Your task to perform on an android device: refresh tabs in the chrome app Image 0: 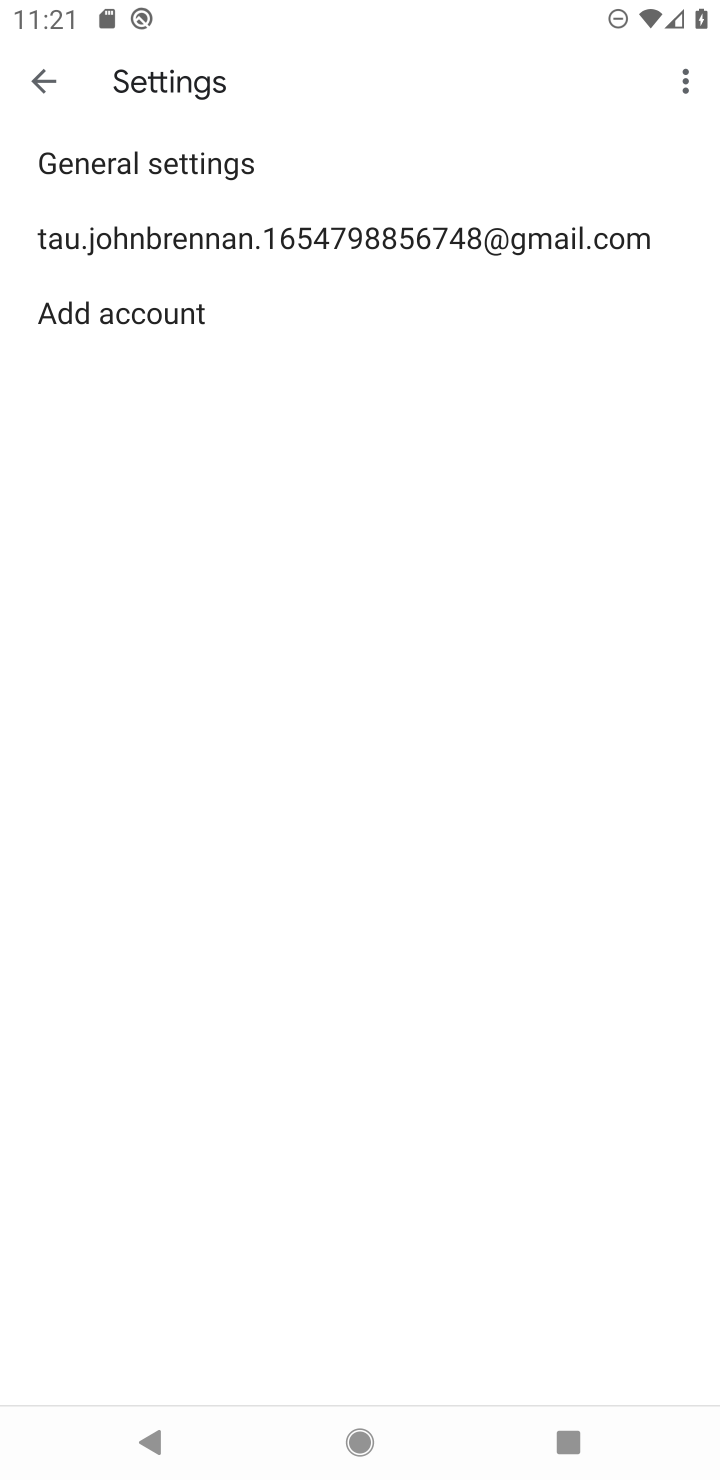
Step 0: press home button
Your task to perform on an android device: refresh tabs in the chrome app Image 1: 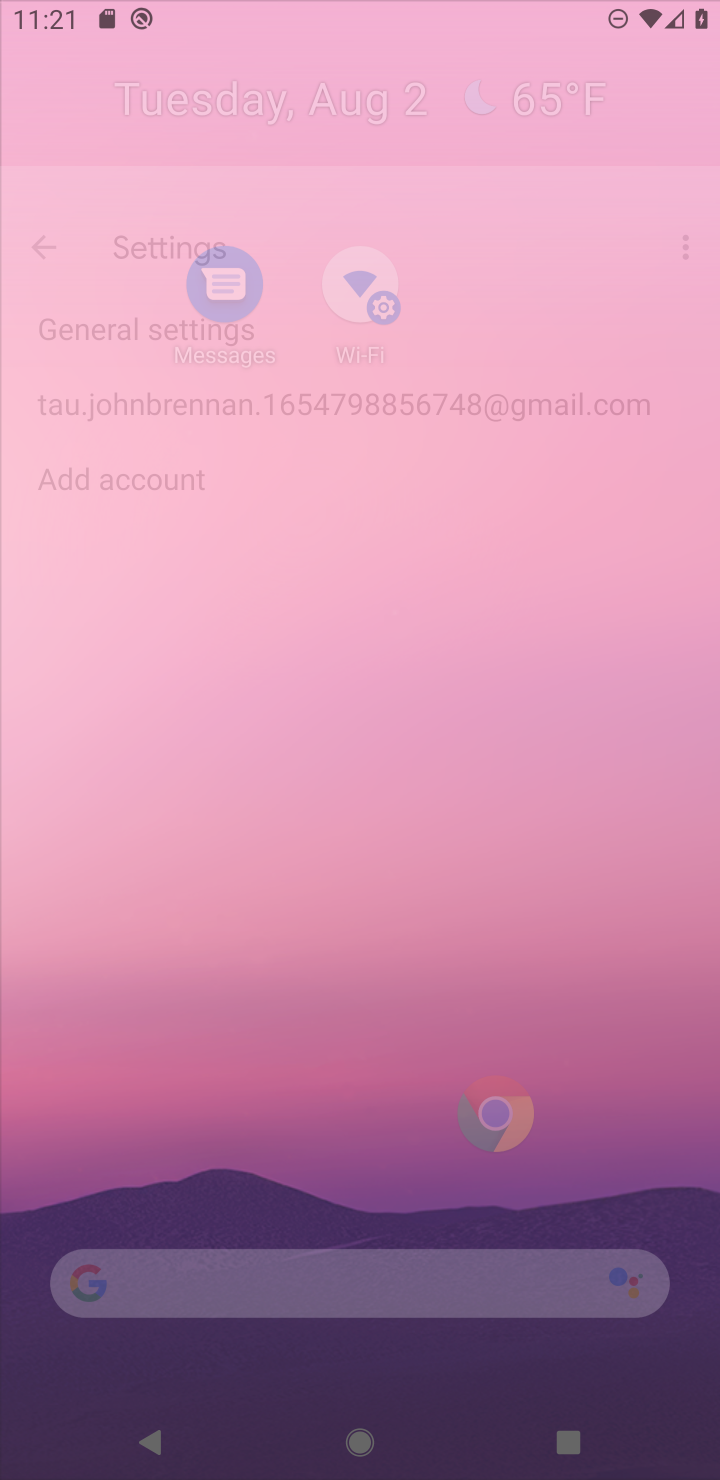
Step 1: drag from (421, 779) to (472, 221)
Your task to perform on an android device: refresh tabs in the chrome app Image 2: 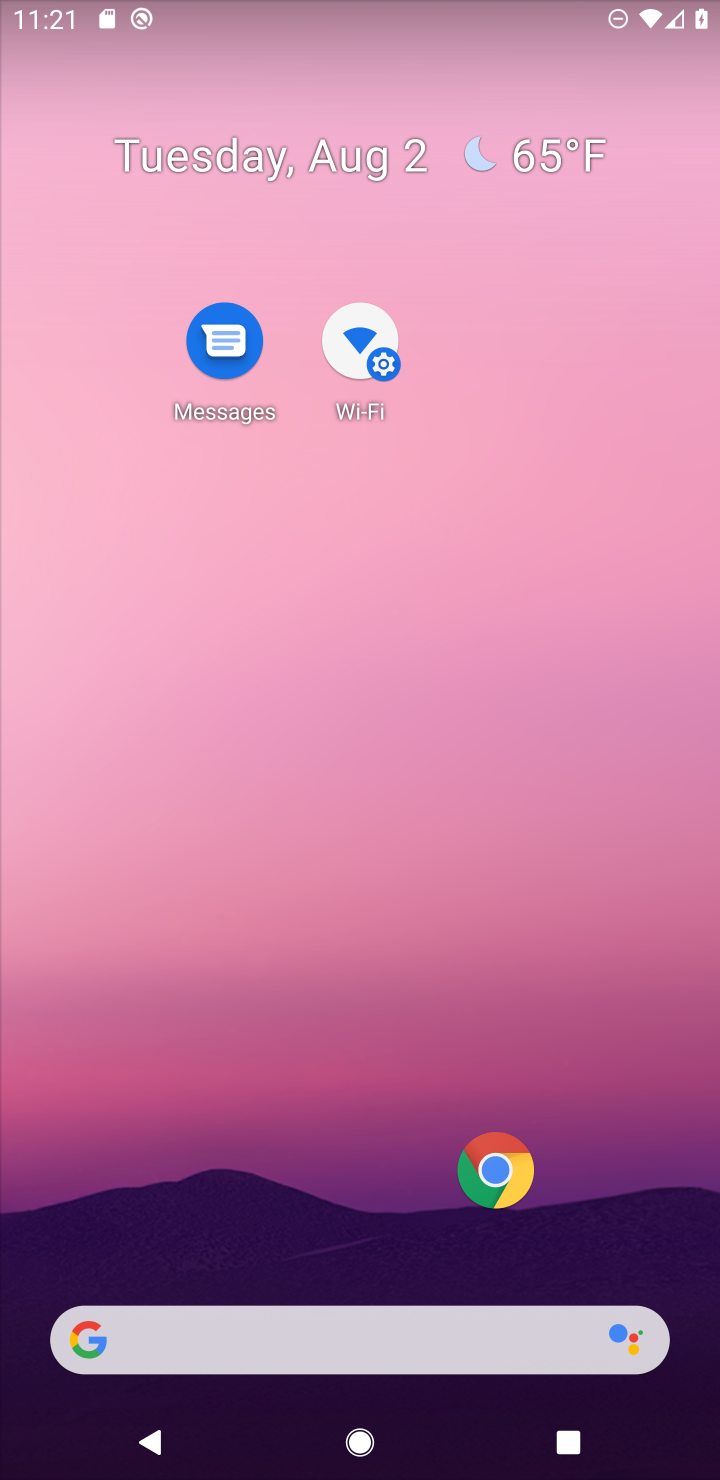
Step 2: drag from (402, 1199) to (470, 824)
Your task to perform on an android device: refresh tabs in the chrome app Image 3: 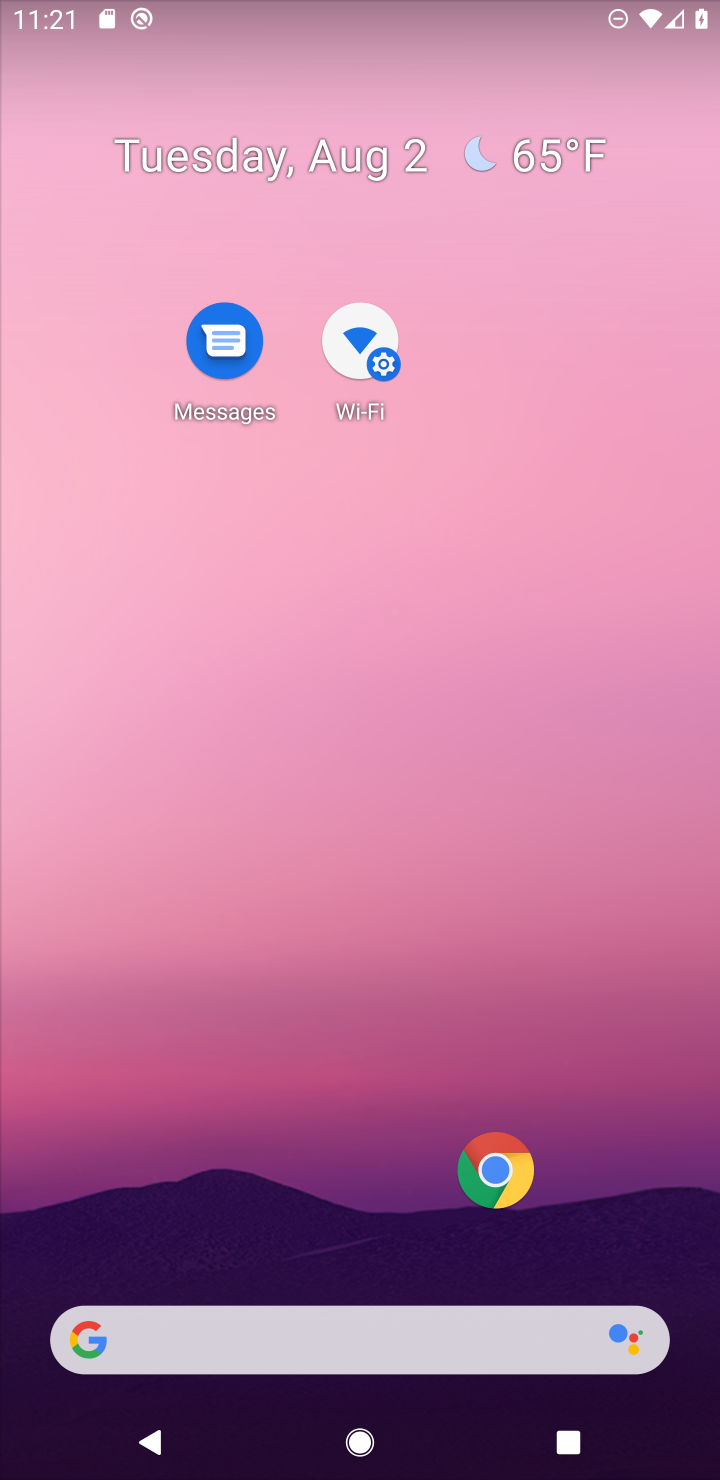
Step 3: drag from (378, 985) to (398, 206)
Your task to perform on an android device: refresh tabs in the chrome app Image 4: 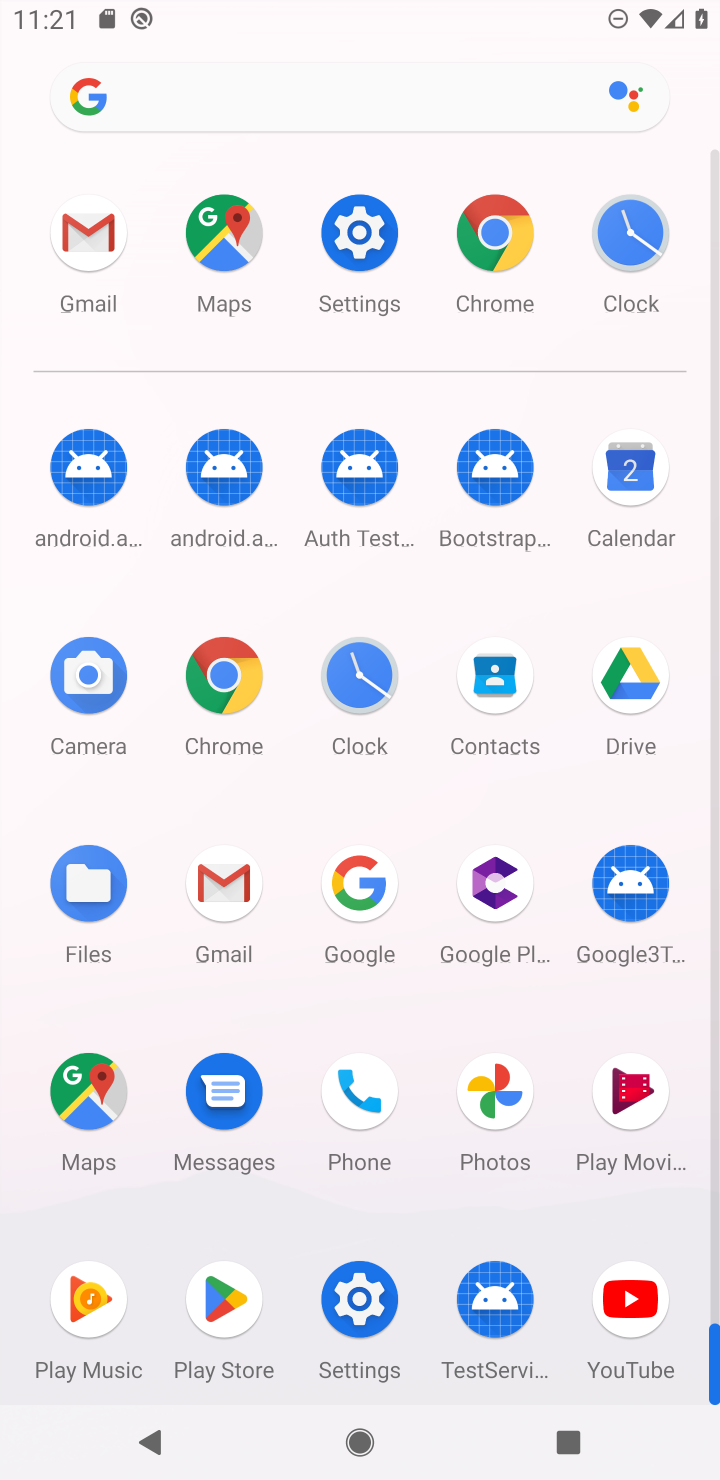
Step 4: drag from (341, 1055) to (423, 464)
Your task to perform on an android device: refresh tabs in the chrome app Image 5: 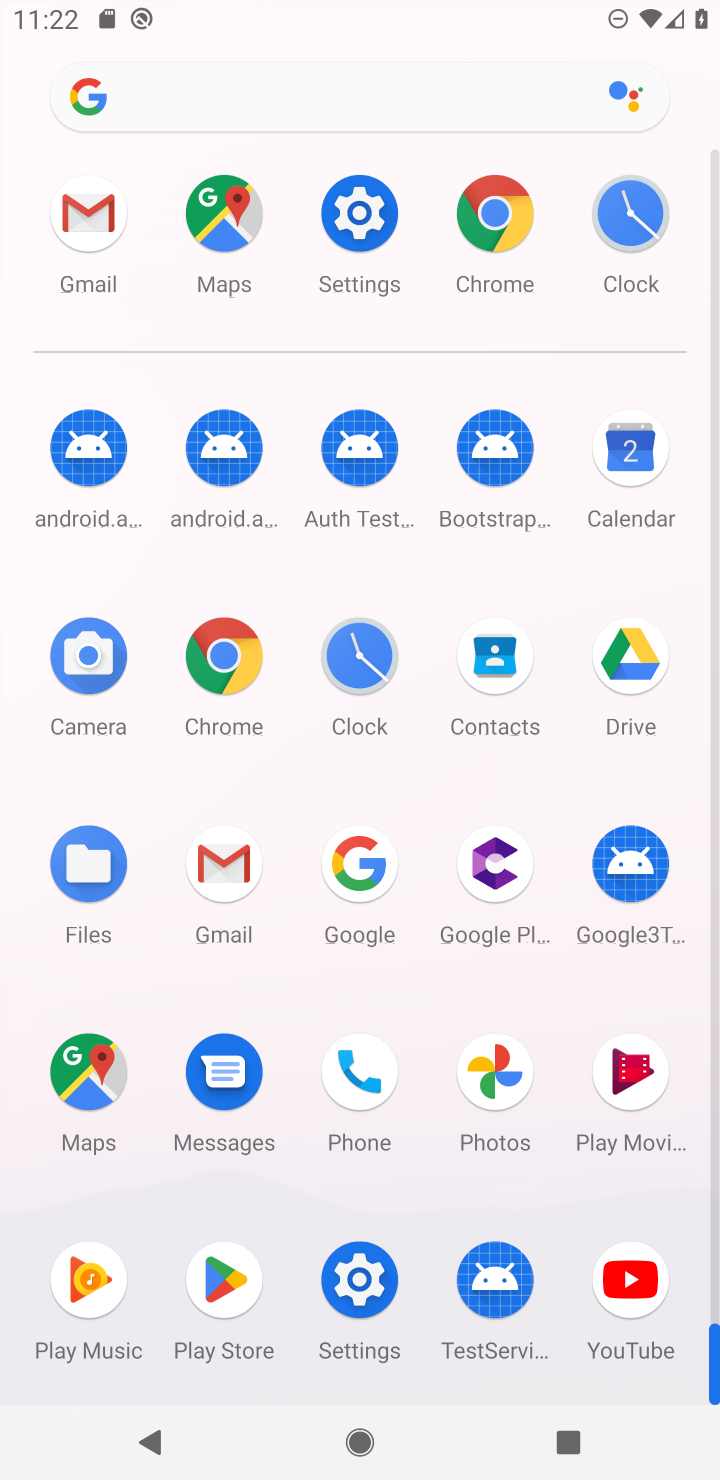
Step 5: drag from (303, 1246) to (318, 537)
Your task to perform on an android device: refresh tabs in the chrome app Image 6: 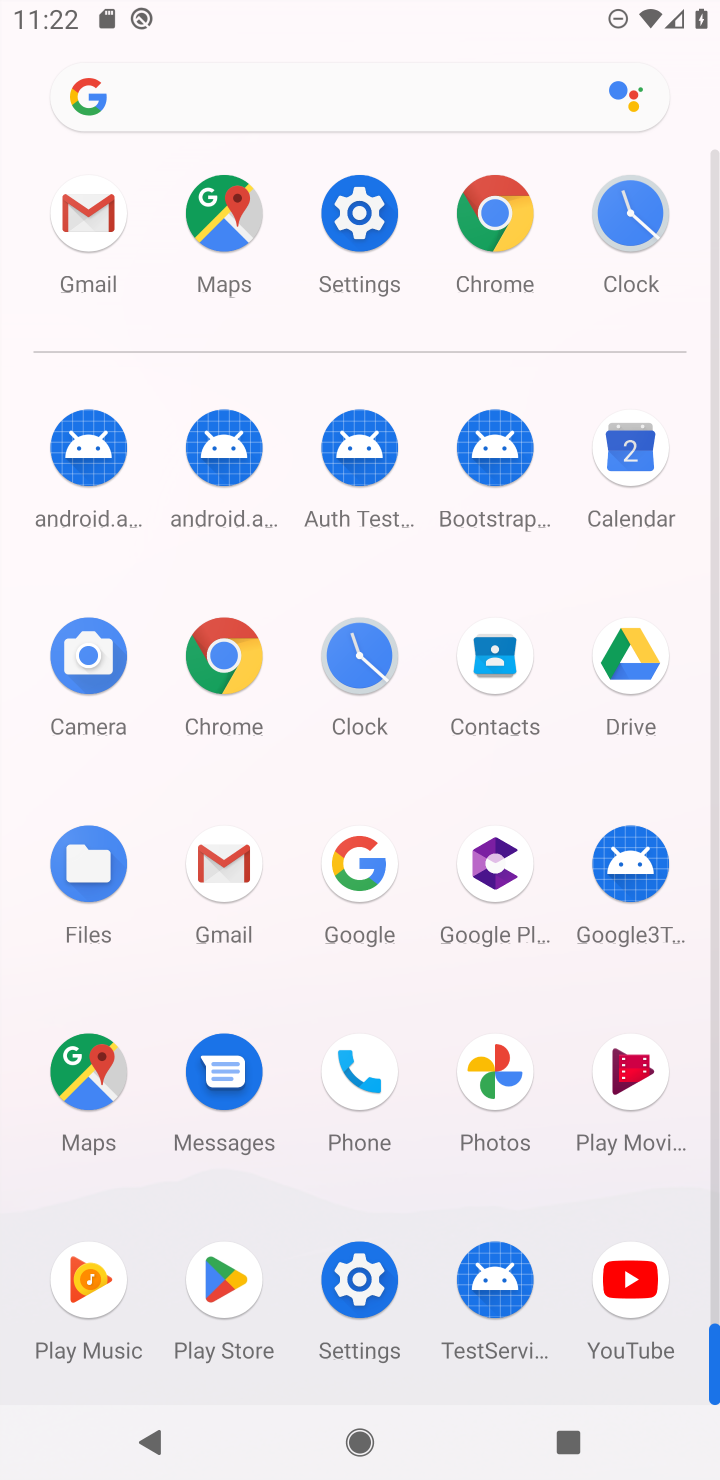
Step 6: click (247, 647)
Your task to perform on an android device: refresh tabs in the chrome app Image 7: 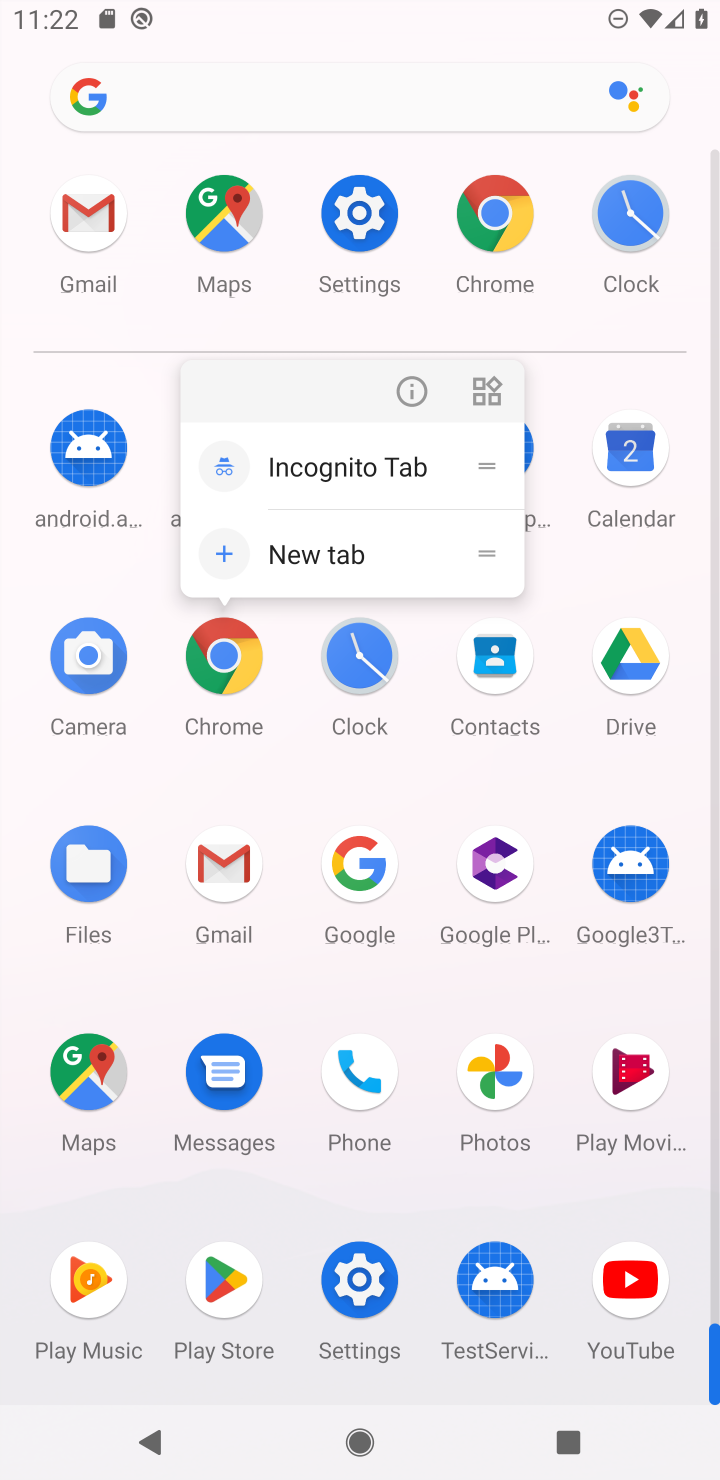
Step 7: click (394, 388)
Your task to perform on an android device: refresh tabs in the chrome app Image 8: 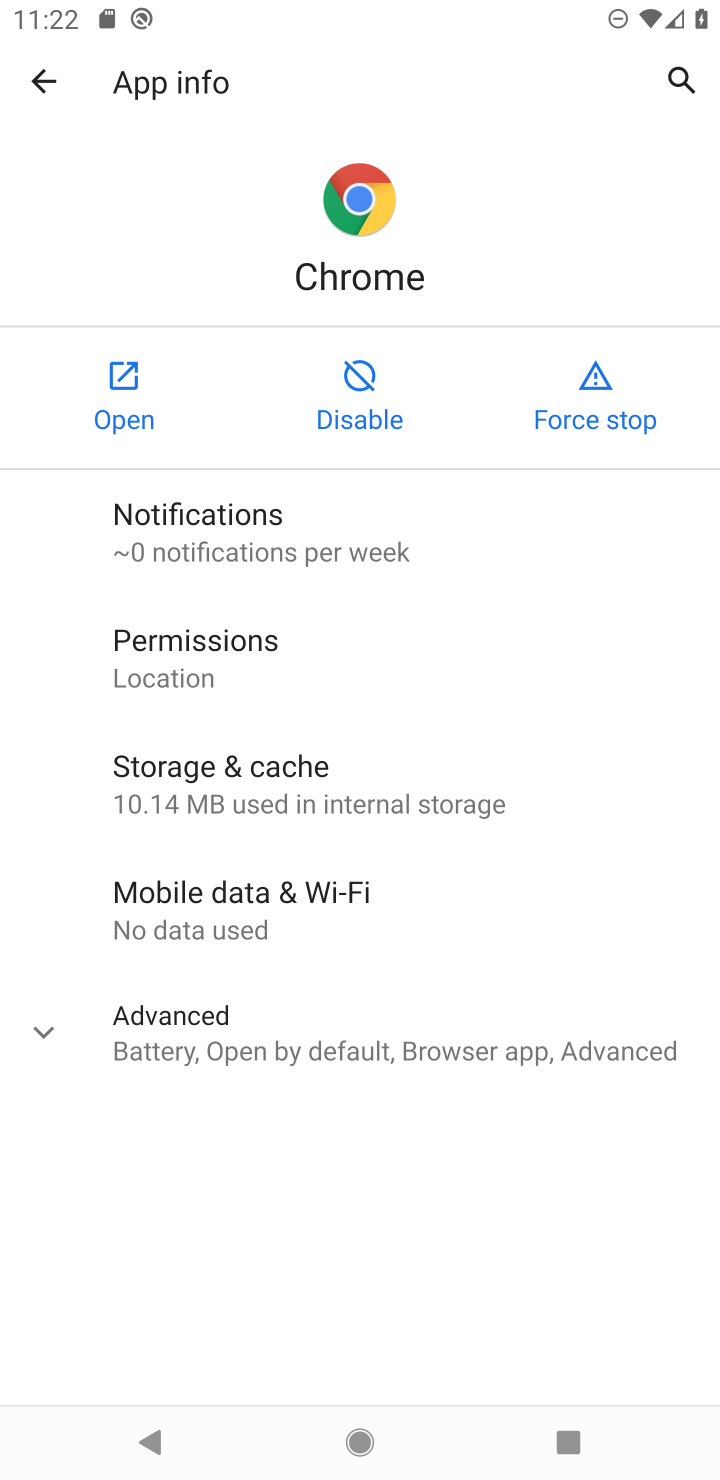
Step 8: click (125, 371)
Your task to perform on an android device: refresh tabs in the chrome app Image 9: 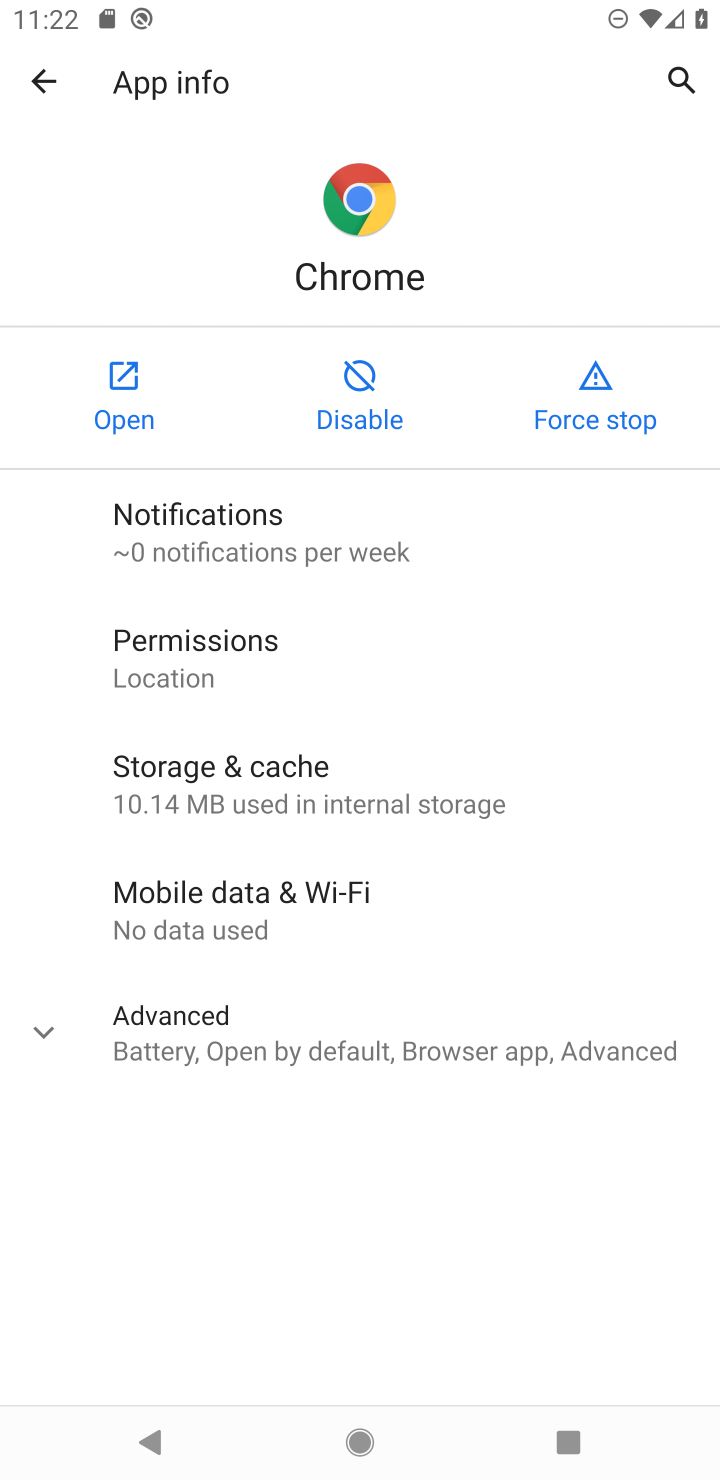
Step 9: click (120, 374)
Your task to perform on an android device: refresh tabs in the chrome app Image 10: 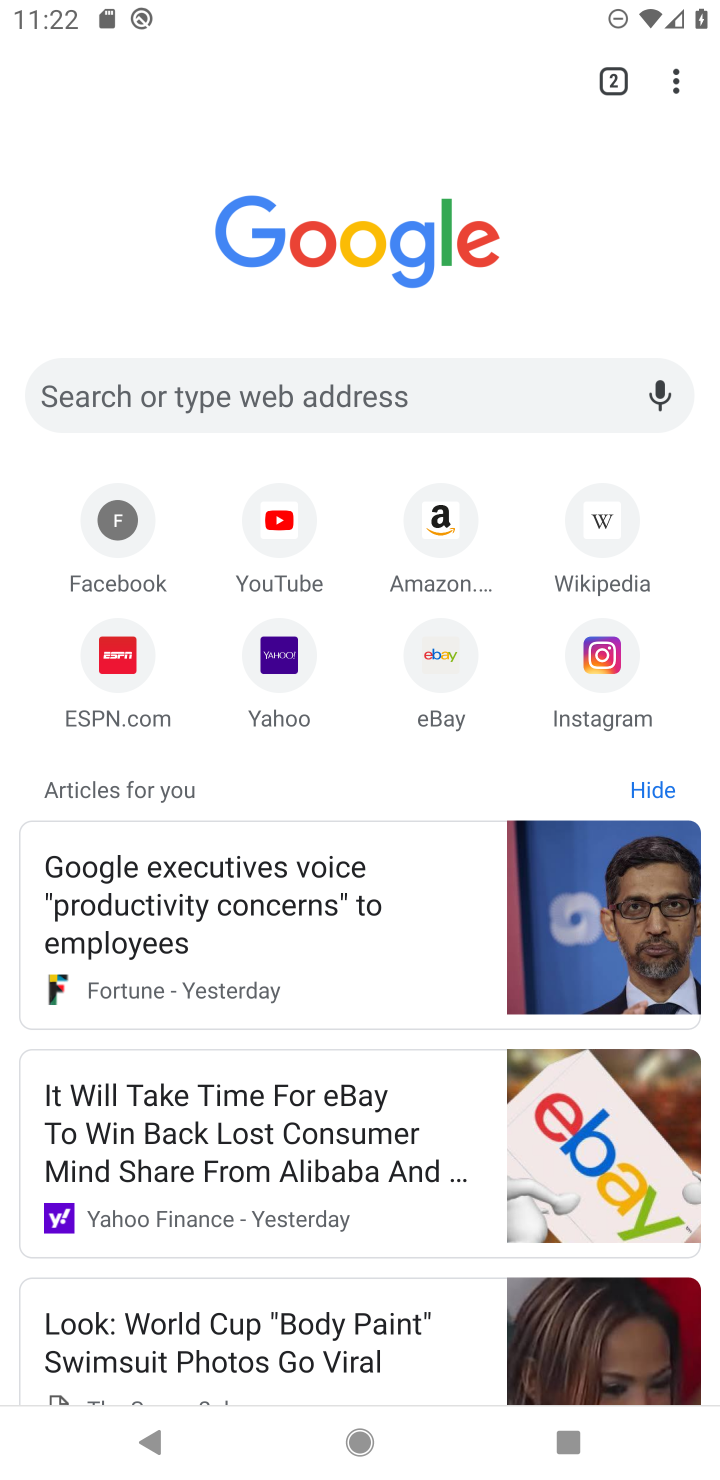
Step 10: click (678, 78)
Your task to perform on an android device: refresh tabs in the chrome app Image 11: 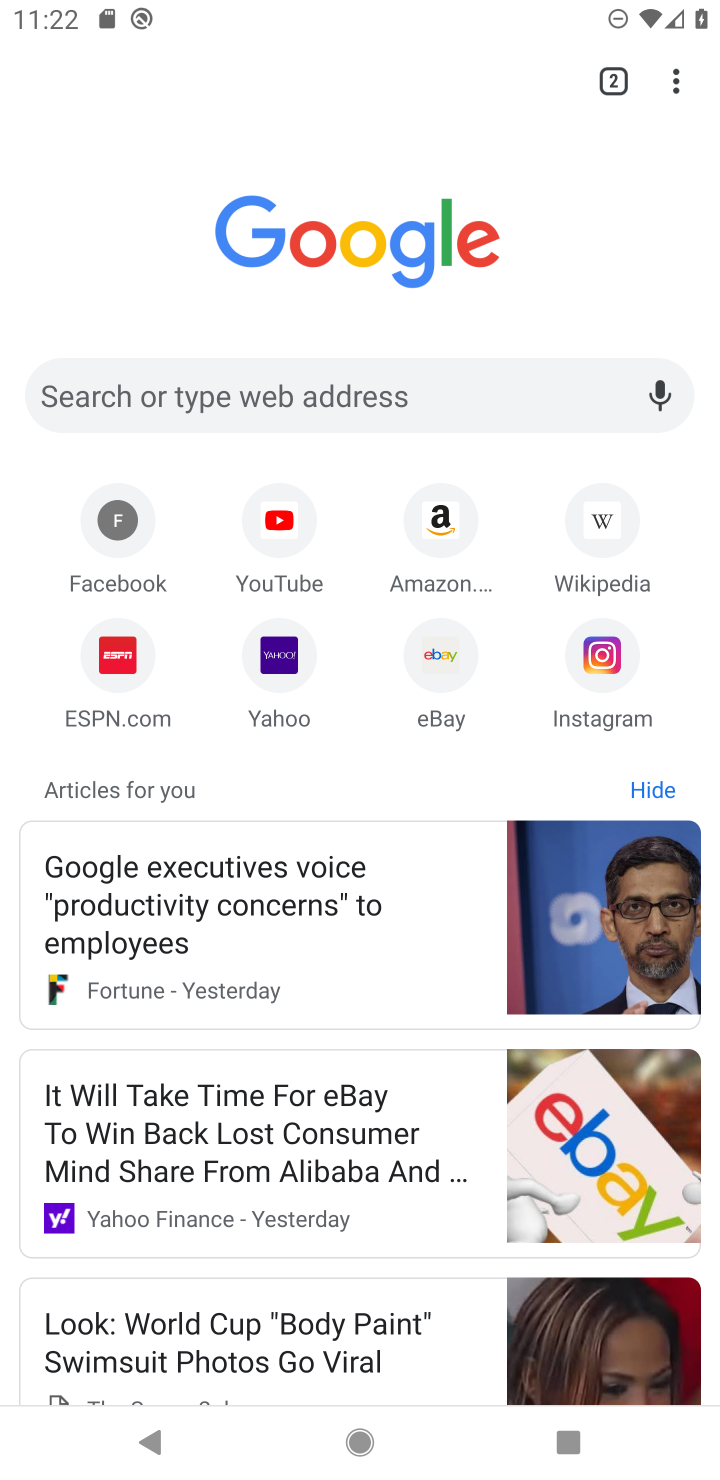
Step 11: task complete